Your task to perform on an android device: Clear the cart on bestbuy.com. Search for logitech g910 on bestbuy.com, select the first entry, and add it to the cart. Image 0: 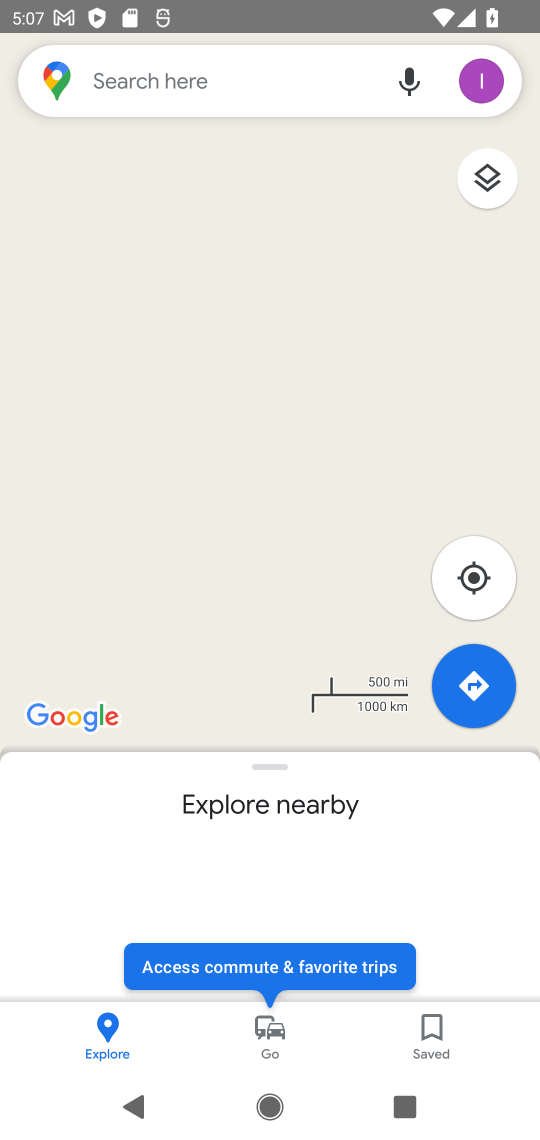
Step 0: press home button
Your task to perform on an android device: Clear the cart on bestbuy.com. Search for logitech g910 on bestbuy.com, select the first entry, and add it to the cart. Image 1: 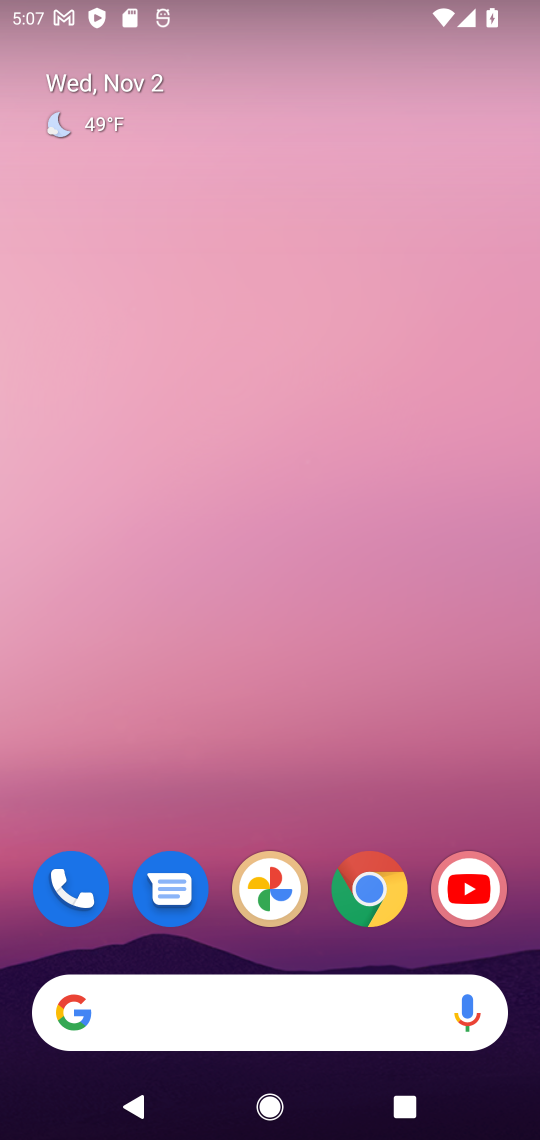
Step 1: click (369, 887)
Your task to perform on an android device: Clear the cart on bestbuy.com. Search for logitech g910 on bestbuy.com, select the first entry, and add it to the cart. Image 2: 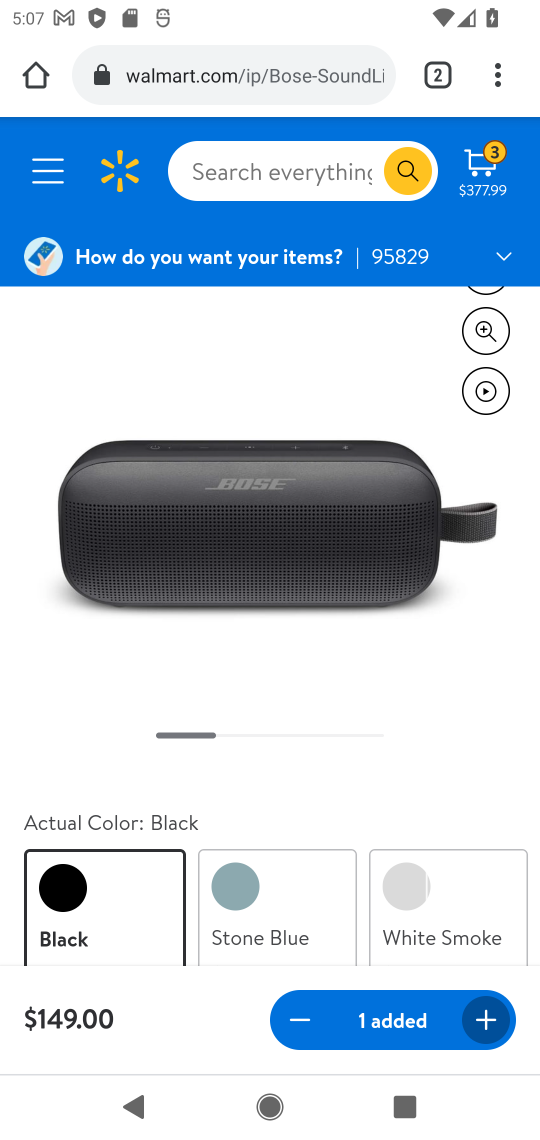
Step 2: click (286, 75)
Your task to perform on an android device: Clear the cart on bestbuy.com. Search for logitech g910 on bestbuy.com, select the first entry, and add it to the cart. Image 3: 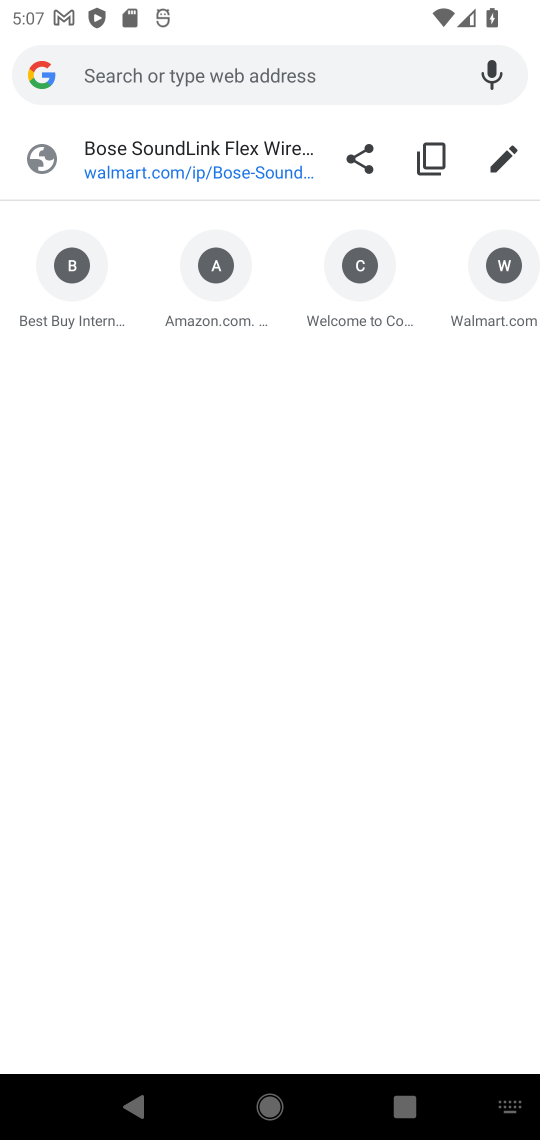
Step 3: click (65, 276)
Your task to perform on an android device: Clear the cart on bestbuy.com. Search for logitech g910 on bestbuy.com, select the first entry, and add it to the cart. Image 4: 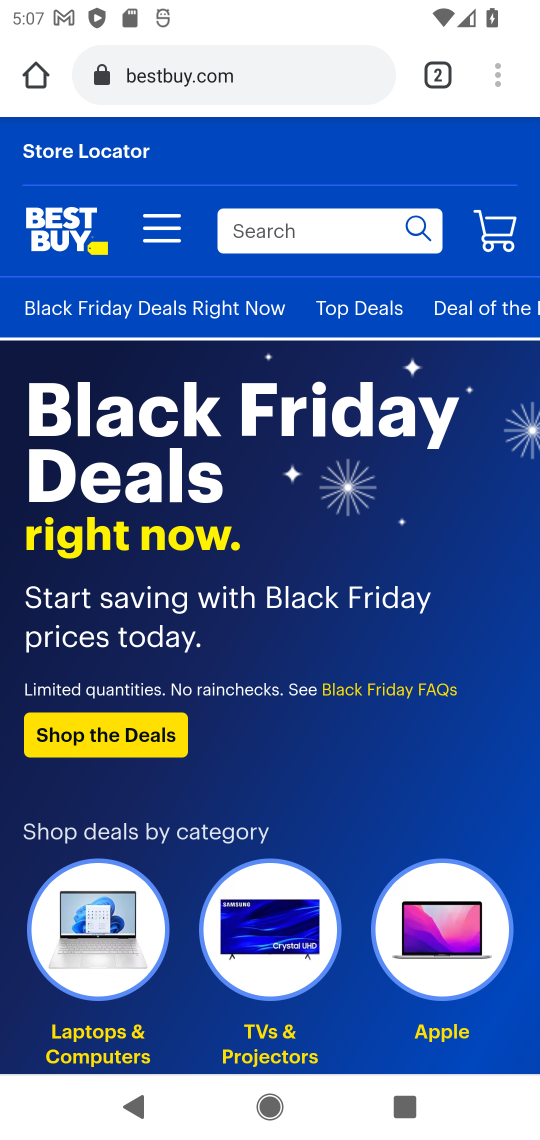
Step 4: click (341, 231)
Your task to perform on an android device: Clear the cart on bestbuy.com. Search for logitech g910 on bestbuy.com, select the first entry, and add it to the cart. Image 5: 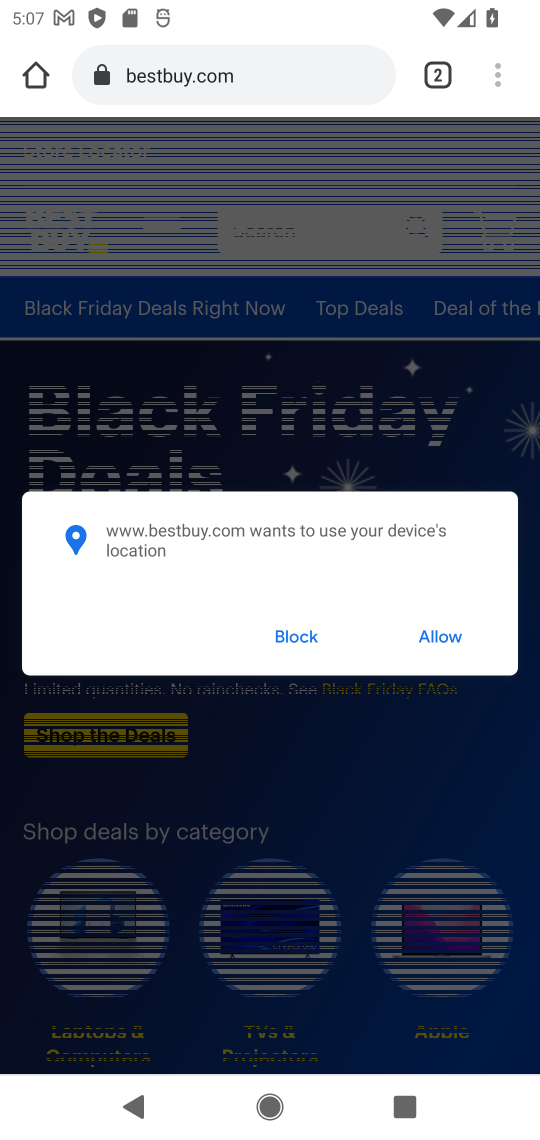
Step 5: click (293, 633)
Your task to perform on an android device: Clear the cart on bestbuy.com. Search for logitech g910 on bestbuy.com, select the first entry, and add it to the cart. Image 6: 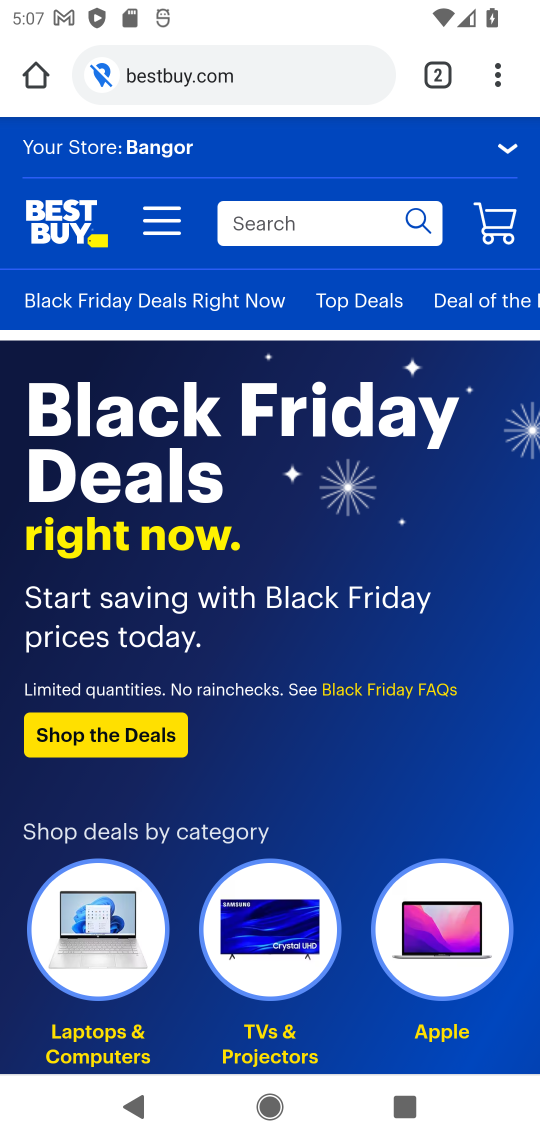
Step 6: click (343, 240)
Your task to perform on an android device: Clear the cart on bestbuy.com. Search for logitech g910 on bestbuy.com, select the first entry, and add it to the cart. Image 7: 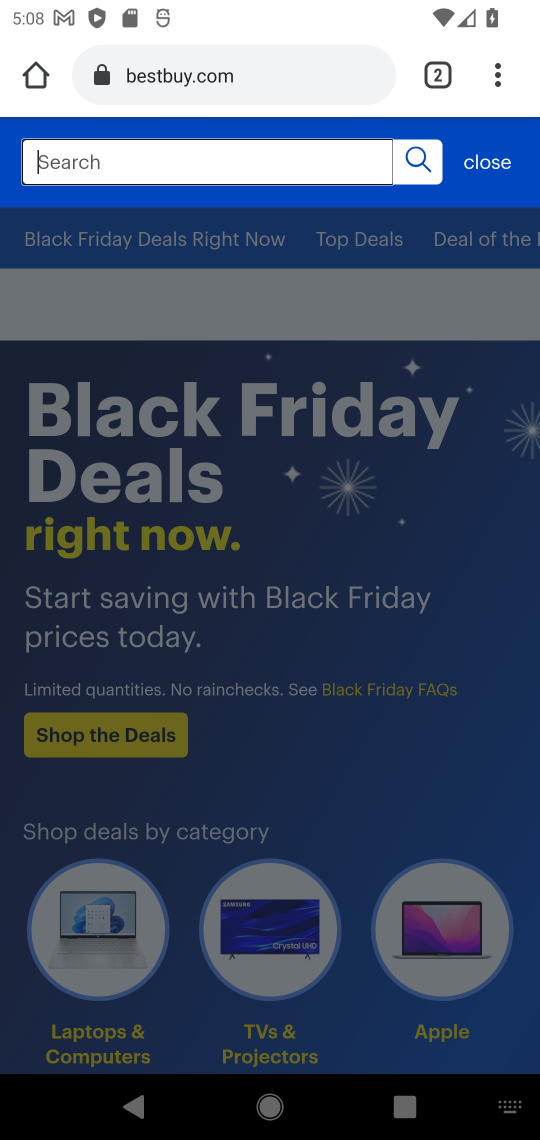
Step 7: type " logitech g910"
Your task to perform on an android device: Clear the cart on bestbuy.com. Search for logitech g910 on bestbuy.com, select the first entry, and add it to the cart. Image 8: 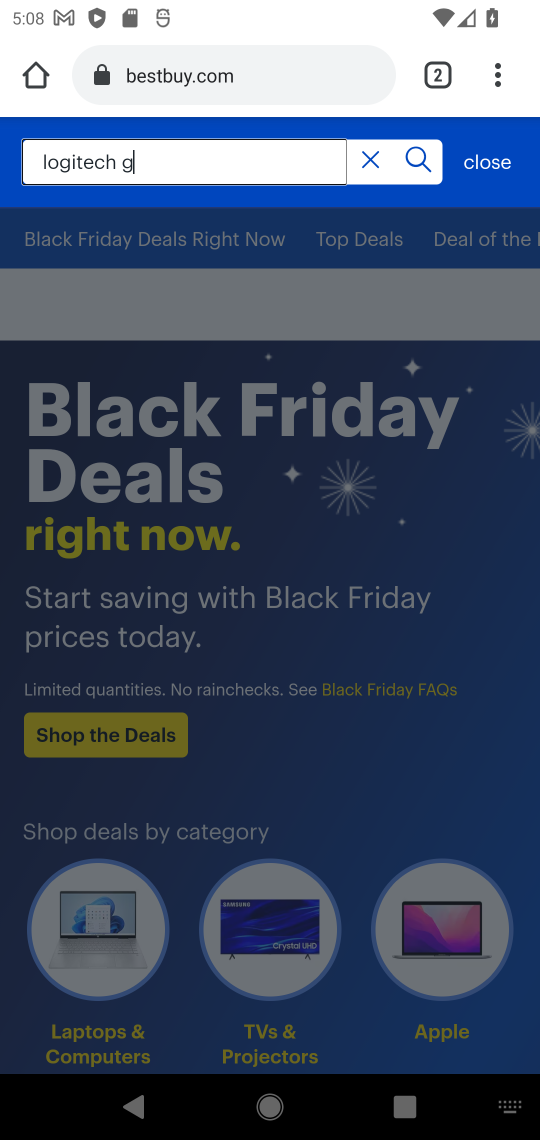
Step 8: press enter
Your task to perform on an android device: Clear the cart on bestbuy.com. Search for logitech g910 on bestbuy.com, select the first entry, and add it to the cart. Image 9: 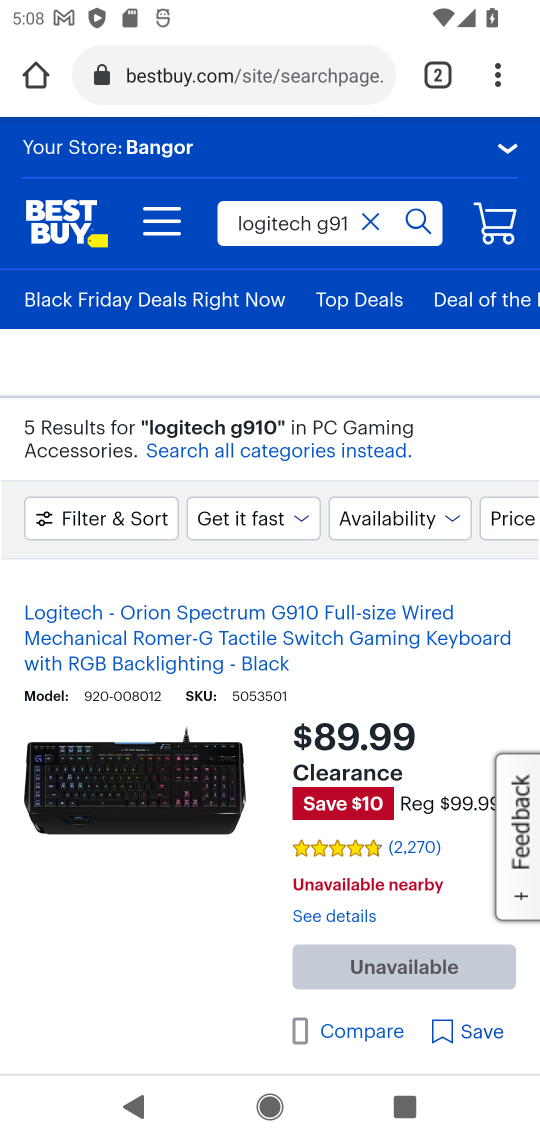
Step 9: drag from (150, 940) to (226, 328)
Your task to perform on an android device: Clear the cart on bestbuy.com. Search for logitech g910 on bestbuy.com, select the first entry, and add it to the cart. Image 10: 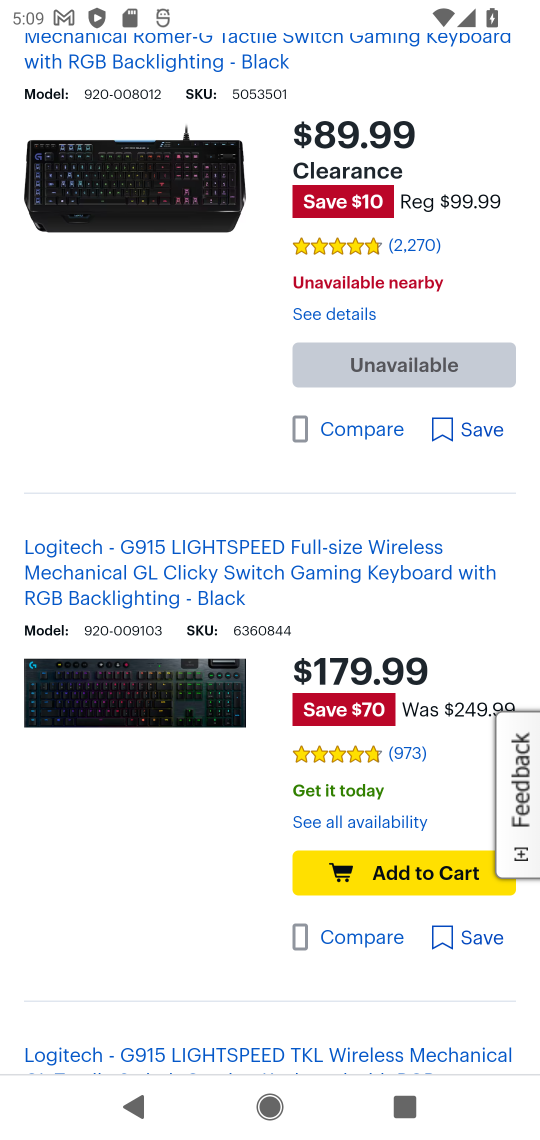
Step 10: click (422, 869)
Your task to perform on an android device: Clear the cart on bestbuy.com. Search for logitech g910 on bestbuy.com, select the first entry, and add it to the cart. Image 11: 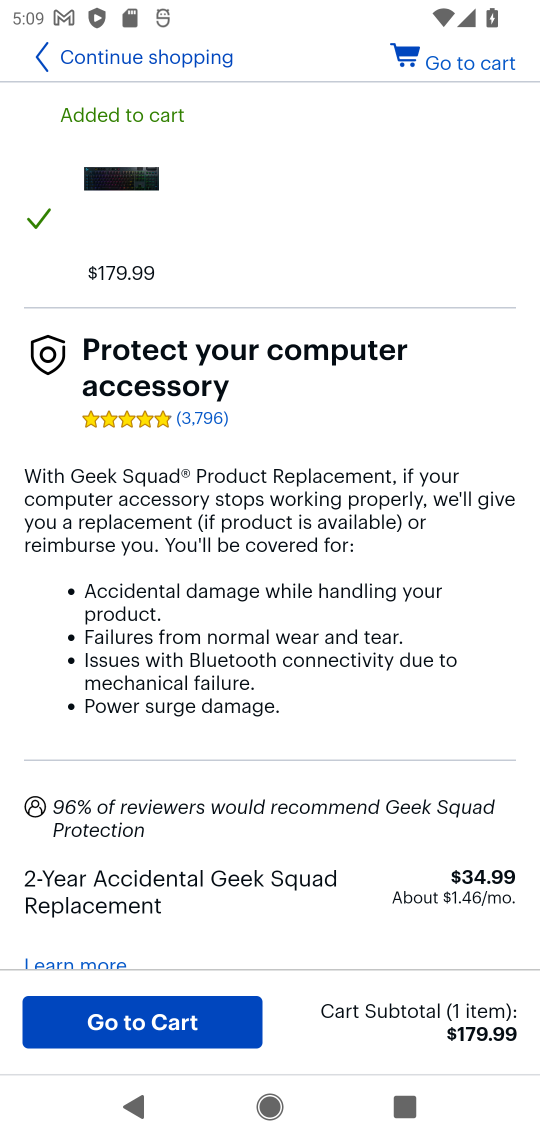
Step 11: click (107, 1022)
Your task to perform on an android device: Clear the cart on bestbuy.com. Search for logitech g910 on bestbuy.com, select the first entry, and add it to the cart. Image 12: 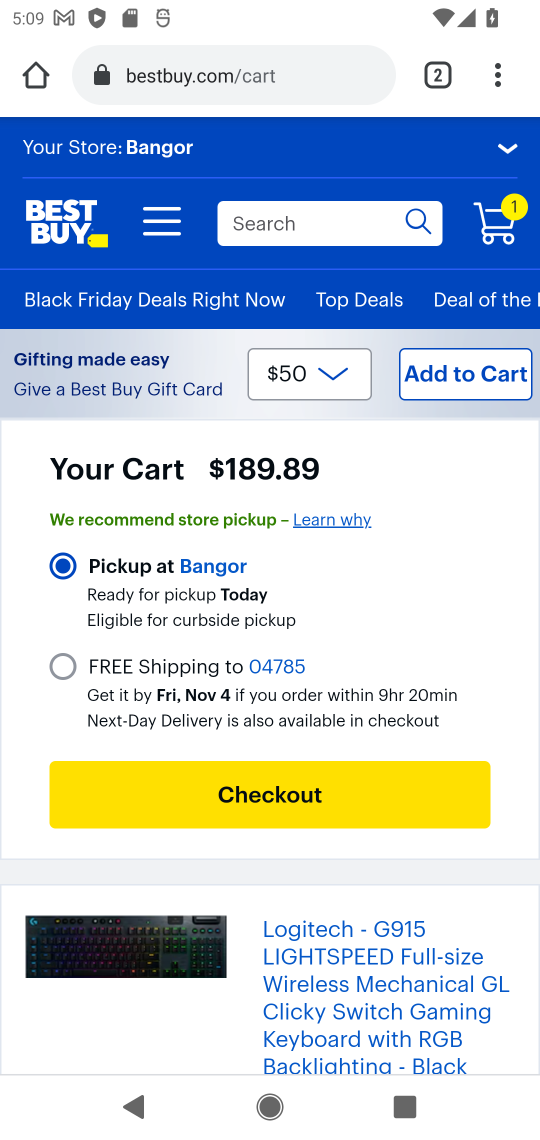
Step 12: task complete